Your task to perform on an android device: open a new tab in the chrome app Image 0: 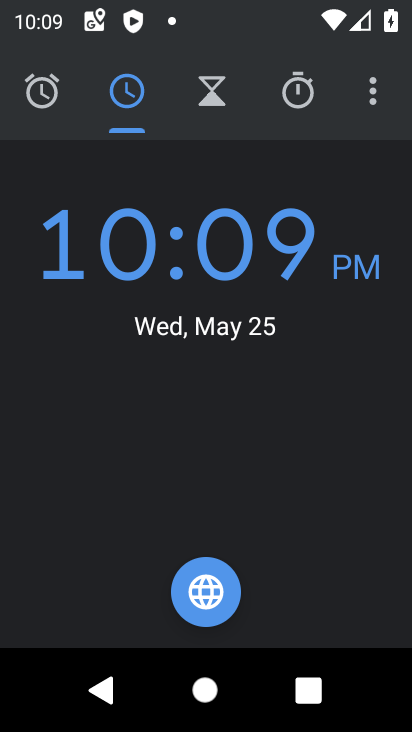
Step 0: press home button
Your task to perform on an android device: open a new tab in the chrome app Image 1: 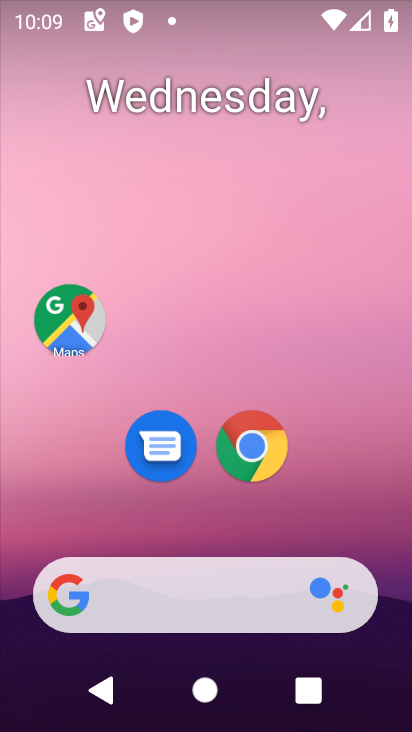
Step 1: click (246, 463)
Your task to perform on an android device: open a new tab in the chrome app Image 2: 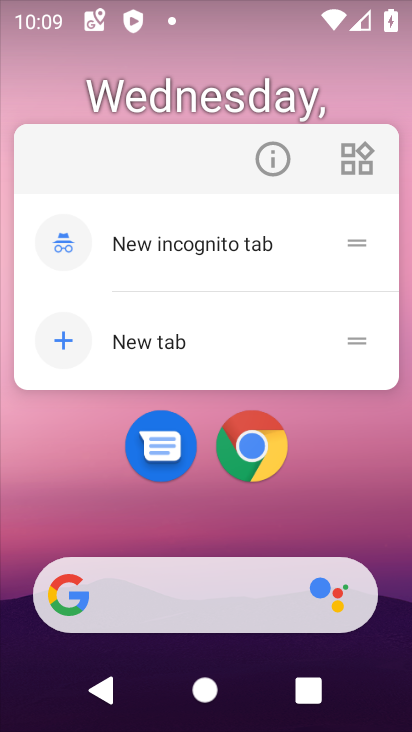
Step 2: click (250, 451)
Your task to perform on an android device: open a new tab in the chrome app Image 3: 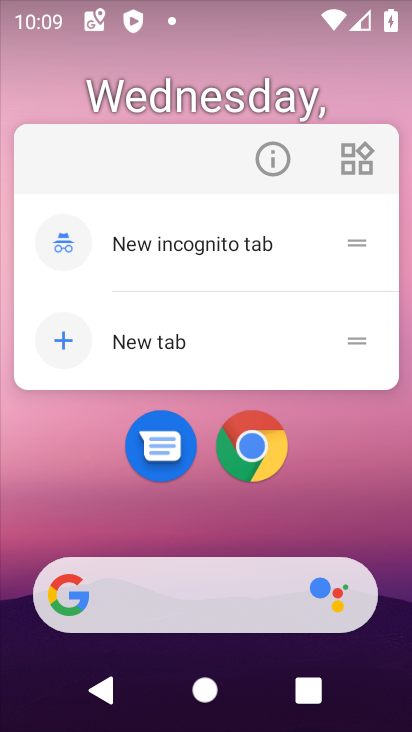
Step 3: click (251, 450)
Your task to perform on an android device: open a new tab in the chrome app Image 4: 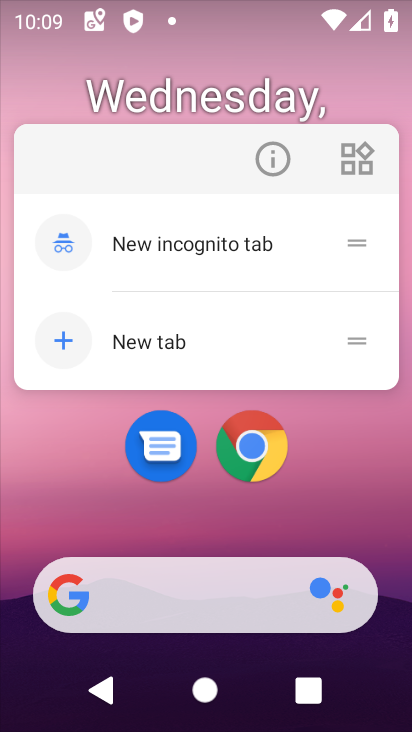
Step 4: click (258, 464)
Your task to perform on an android device: open a new tab in the chrome app Image 5: 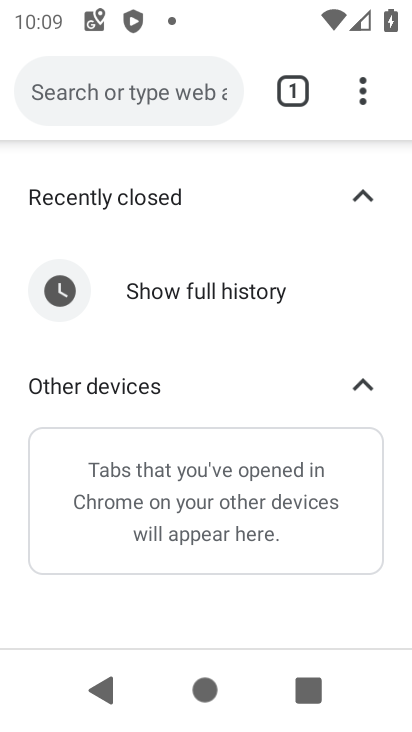
Step 5: click (308, 89)
Your task to perform on an android device: open a new tab in the chrome app Image 6: 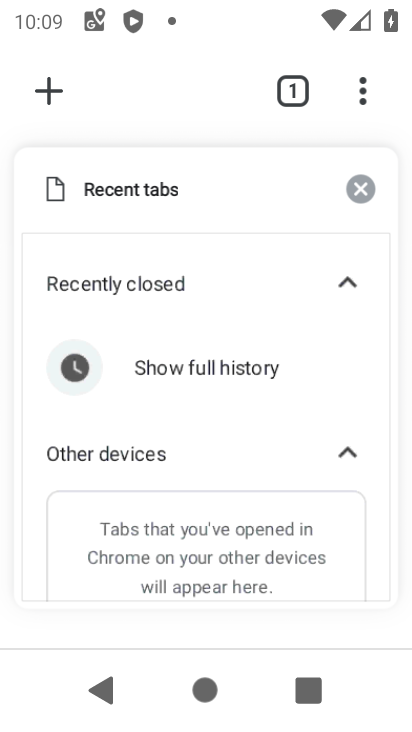
Step 6: click (45, 104)
Your task to perform on an android device: open a new tab in the chrome app Image 7: 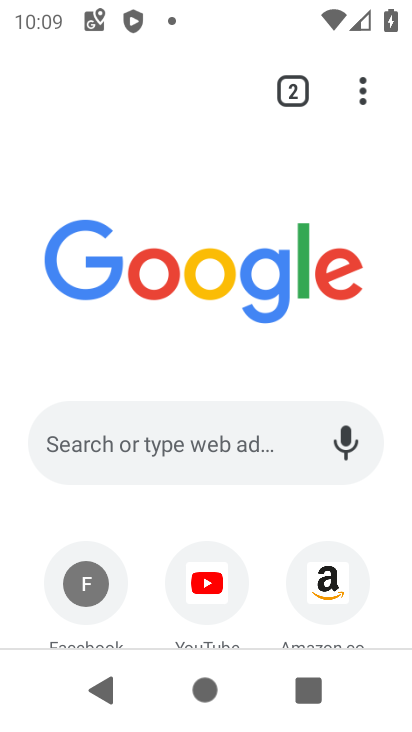
Step 7: task complete